Your task to perform on an android device: Go to battery settings Image 0: 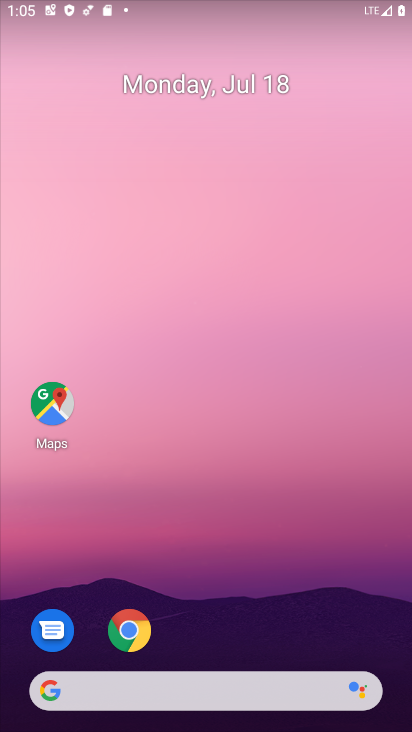
Step 0: drag from (292, 610) to (270, 44)
Your task to perform on an android device: Go to battery settings Image 1: 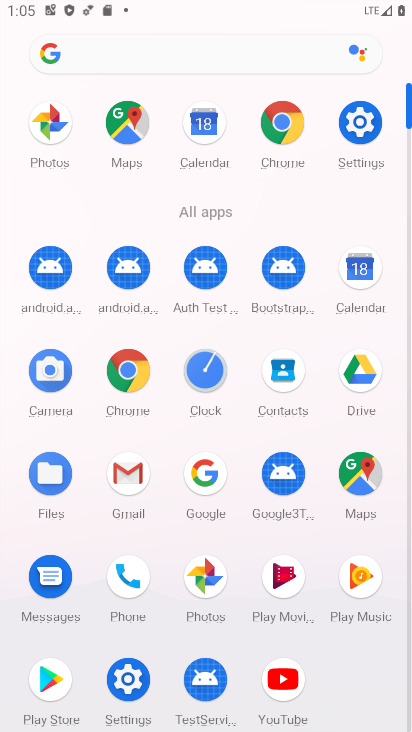
Step 1: click (355, 127)
Your task to perform on an android device: Go to battery settings Image 2: 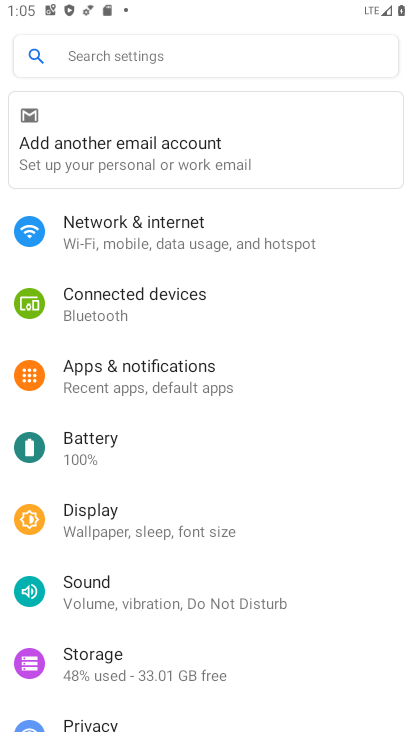
Step 2: click (105, 457)
Your task to perform on an android device: Go to battery settings Image 3: 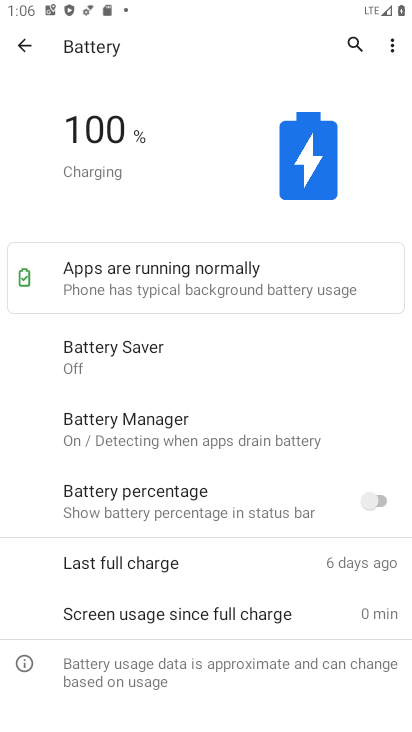
Step 3: task complete